Your task to perform on an android device: Open Yahoo.com Image 0: 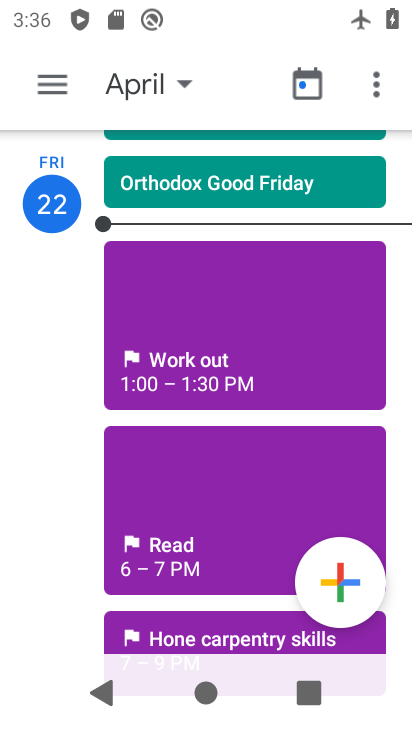
Step 0: press home button
Your task to perform on an android device: Open Yahoo.com Image 1: 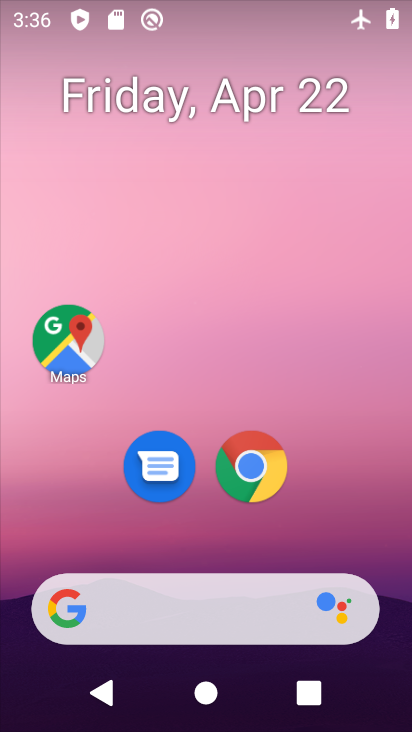
Step 1: click (252, 474)
Your task to perform on an android device: Open Yahoo.com Image 2: 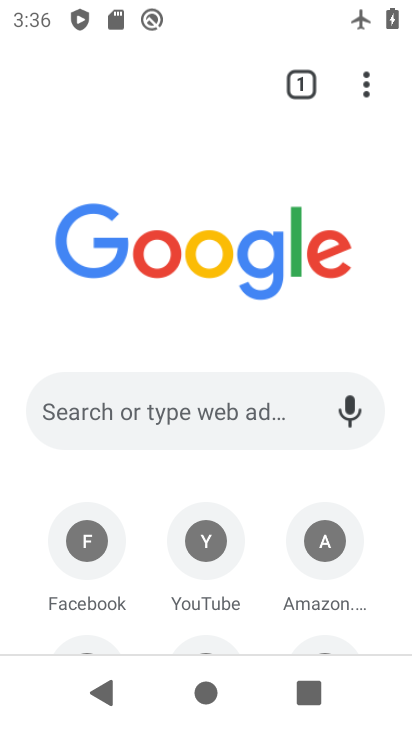
Step 2: click (107, 408)
Your task to perform on an android device: Open Yahoo.com Image 3: 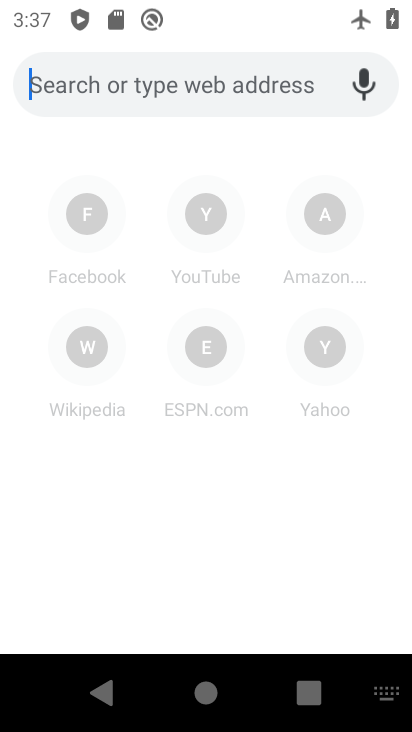
Step 3: type "yahoo.com"
Your task to perform on an android device: Open Yahoo.com Image 4: 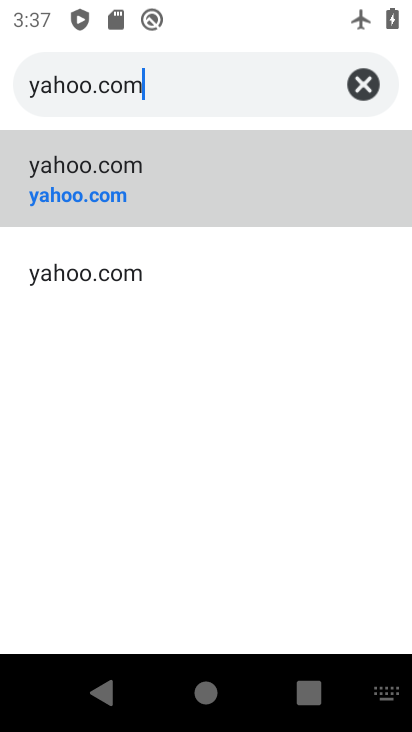
Step 4: click (58, 167)
Your task to perform on an android device: Open Yahoo.com Image 5: 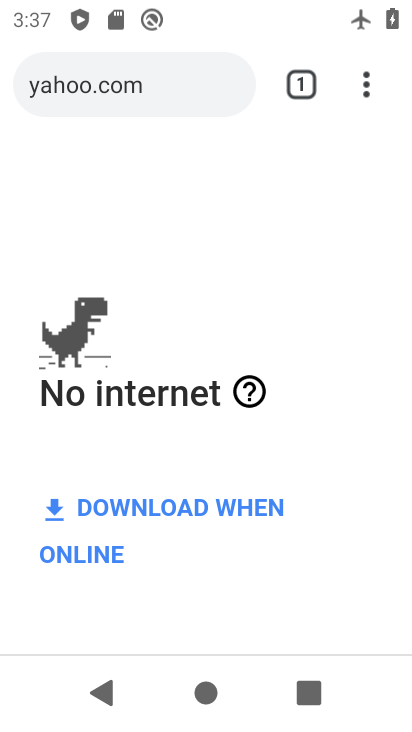
Step 5: task complete